Your task to perform on an android device: What's the weather going to be tomorrow? Image 0: 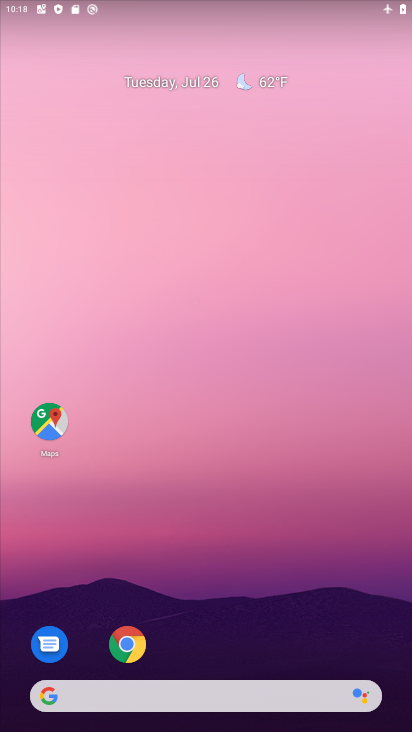
Step 0: click (181, 691)
Your task to perform on an android device: What's the weather going to be tomorrow? Image 1: 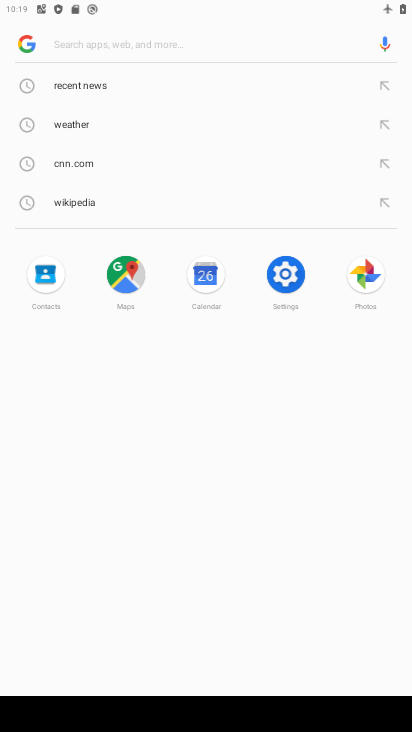
Step 1: click (66, 131)
Your task to perform on an android device: What's the weather going to be tomorrow? Image 2: 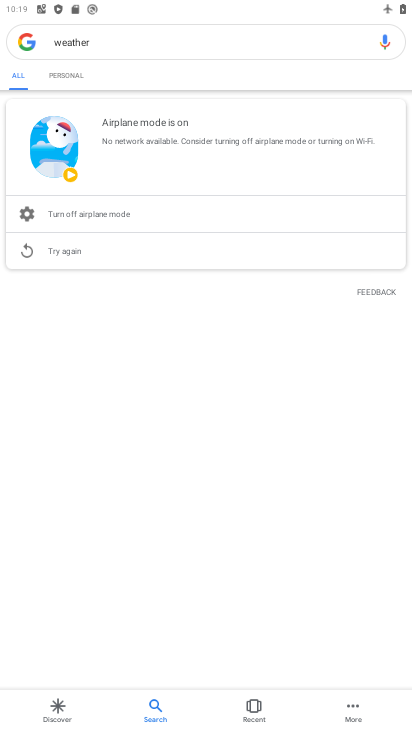
Step 2: task complete